Your task to perform on an android device: change text size in settings app Image 0: 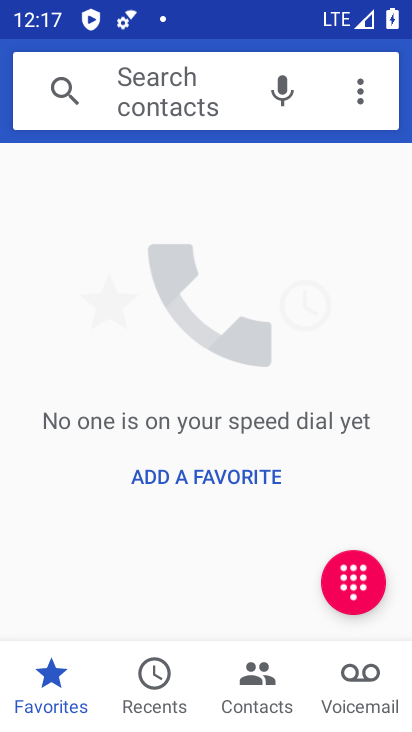
Step 0: press home button
Your task to perform on an android device: change text size in settings app Image 1: 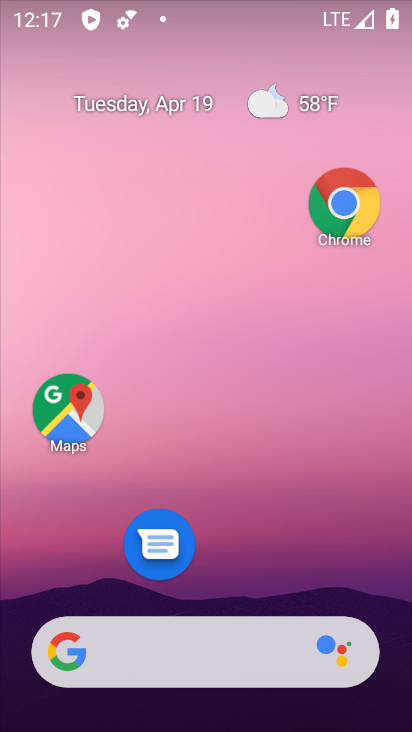
Step 1: drag from (268, 553) to (260, 27)
Your task to perform on an android device: change text size in settings app Image 2: 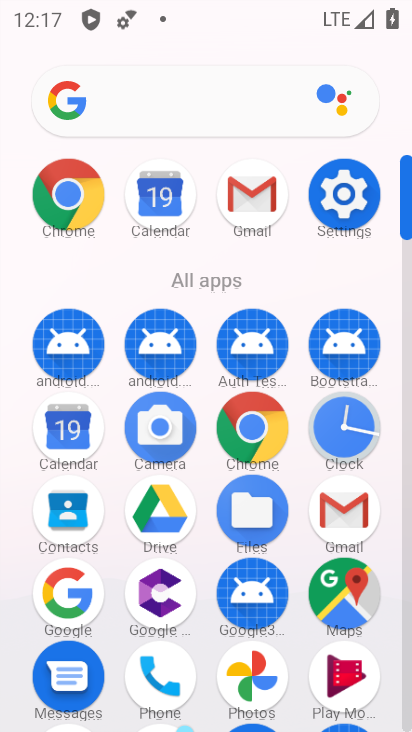
Step 2: click (340, 205)
Your task to perform on an android device: change text size in settings app Image 3: 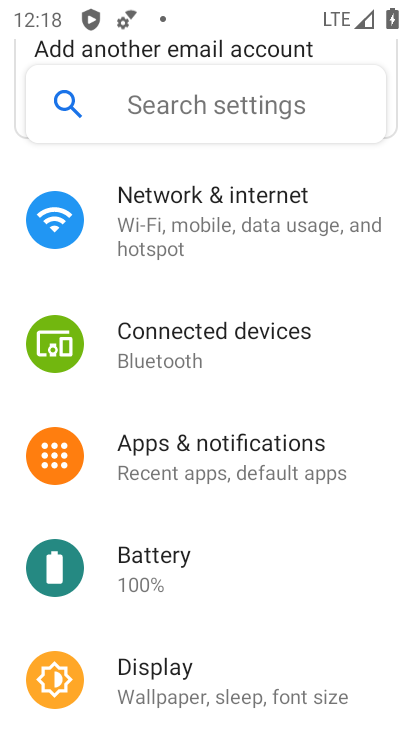
Step 3: click (223, 703)
Your task to perform on an android device: change text size in settings app Image 4: 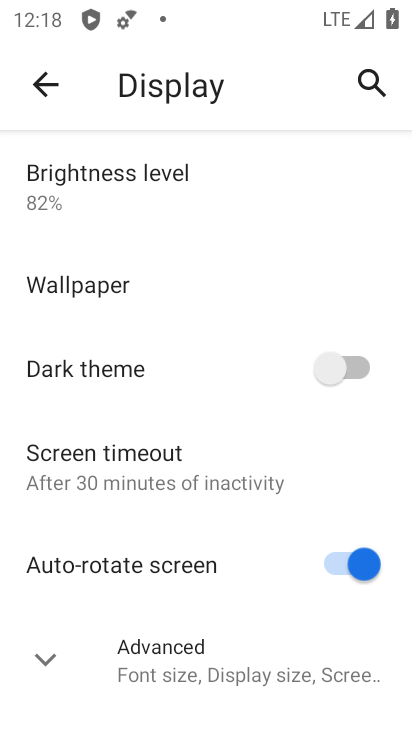
Step 4: drag from (254, 566) to (251, 169)
Your task to perform on an android device: change text size in settings app Image 5: 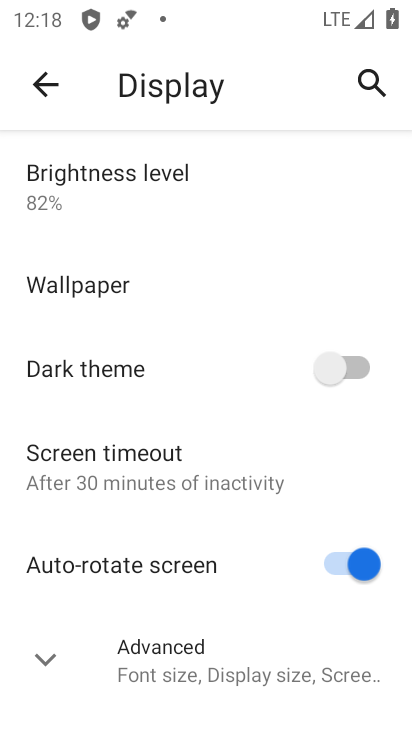
Step 5: click (203, 668)
Your task to perform on an android device: change text size in settings app Image 6: 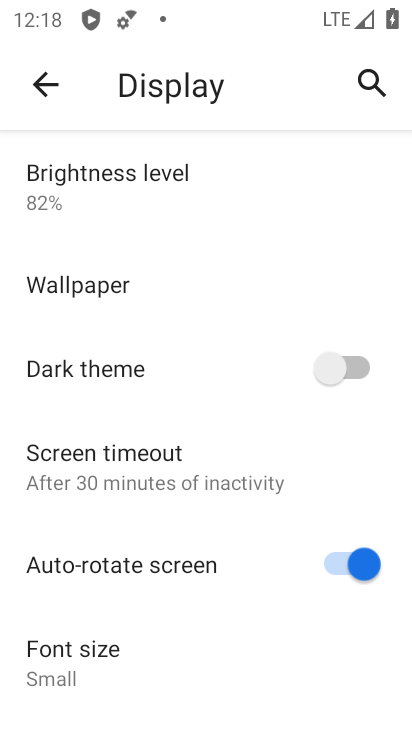
Step 6: drag from (207, 655) to (214, 265)
Your task to perform on an android device: change text size in settings app Image 7: 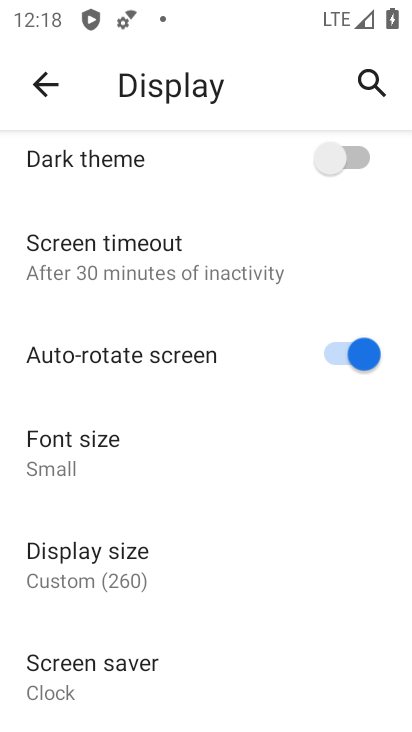
Step 7: click (70, 464)
Your task to perform on an android device: change text size in settings app Image 8: 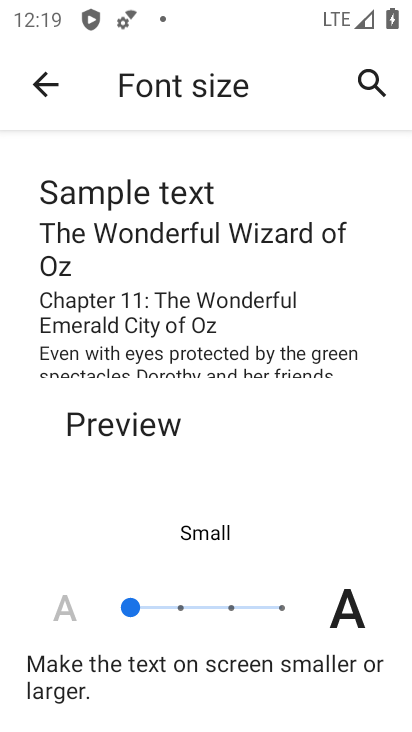
Step 8: task complete